Your task to perform on an android device: turn off wifi Image 0: 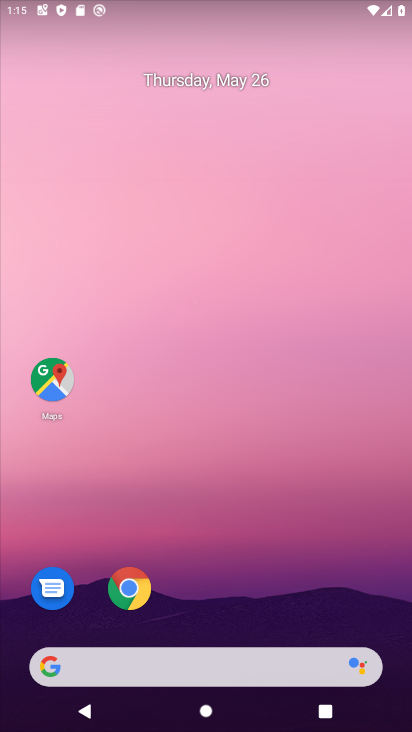
Step 0: drag from (387, 652) to (373, 227)
Your task to perform on an android device: turn off wifi Image 1: 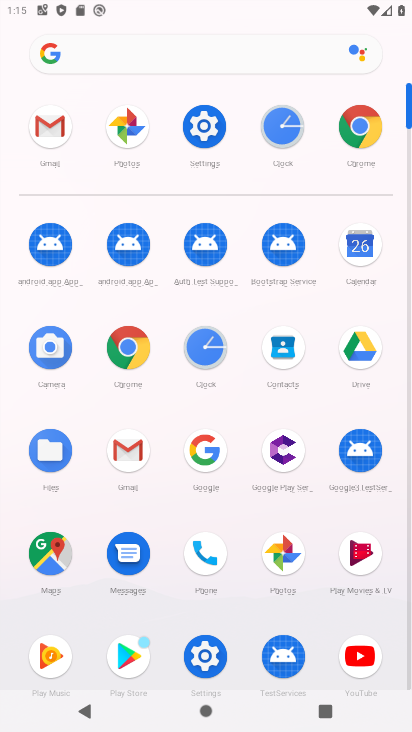
Step 1: click (188, 132)
Your task to perform on an android device: turn off wifi Image 2: 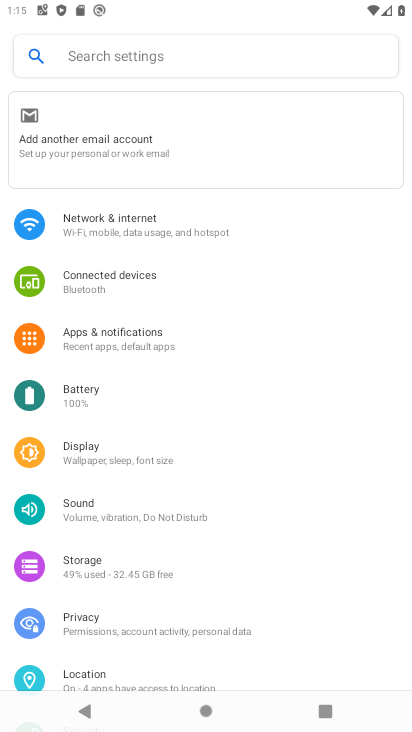
Step 2: click (102, 220)
Your task to perform on an android device: turn off wifi Image 3: 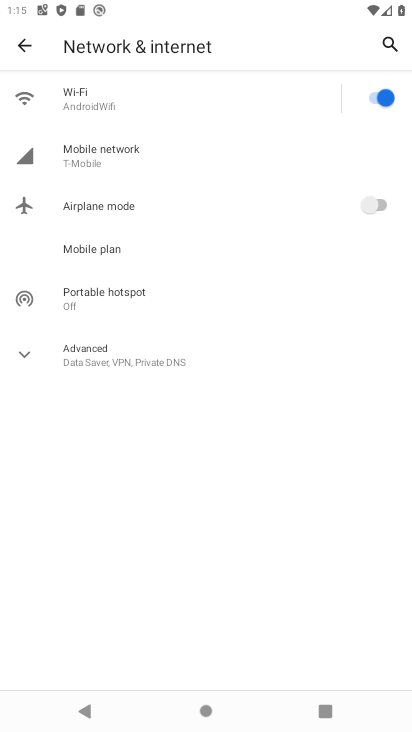
Step 3: click (377, 96)
Your task to perform on an android device: turn off wifi Image 4: 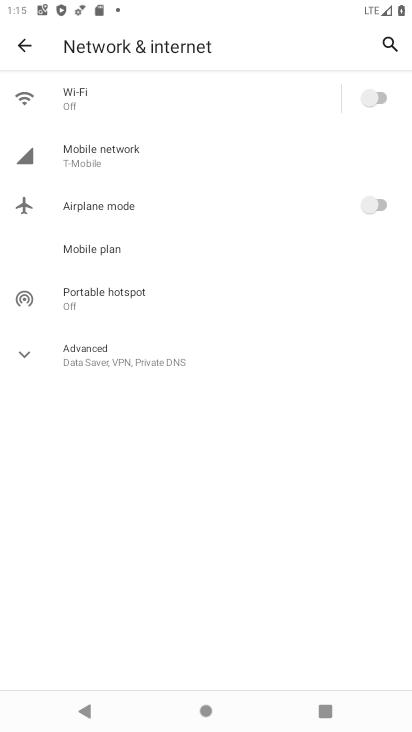
Step 4: task complete